Your task to perform on an android device: Go to Yahoo.com Image 0: 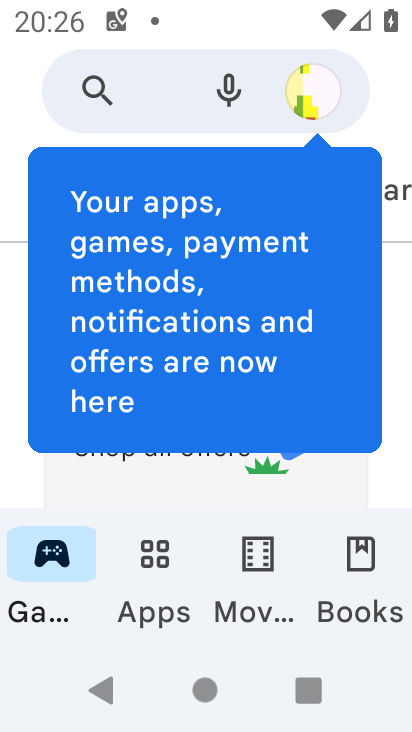
Step 0: press home button
Your task to perform on an android device: Go to Yahoo.com Image 1: 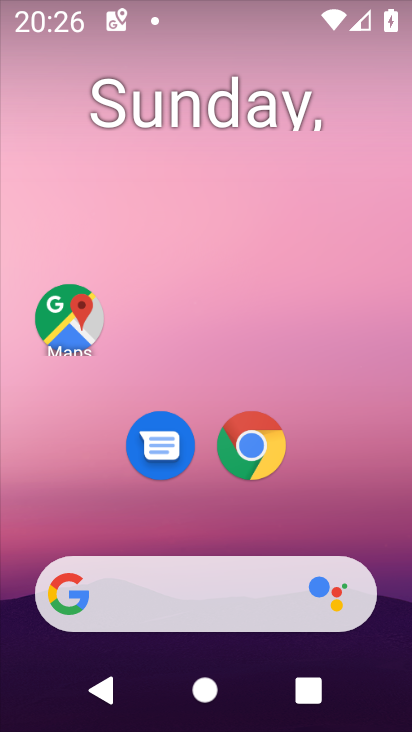
Step 1: click (239, 441)
Your task to perform on an android device: Go to Yahoo.com Image 2: 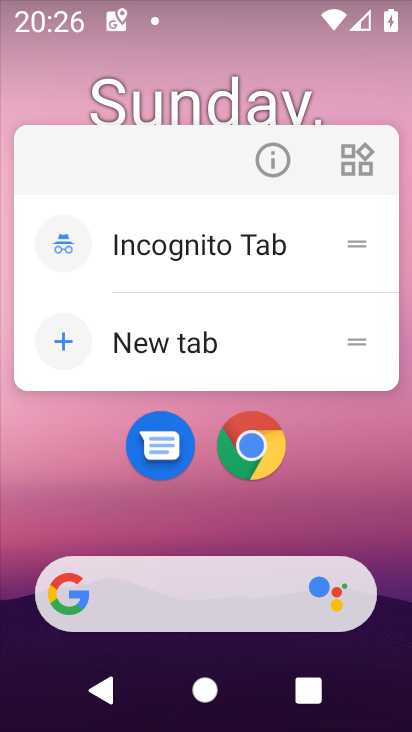
Step 2: click (255, 442)
Your task to perform on an android device: Go to Yahoo.com Image 3: 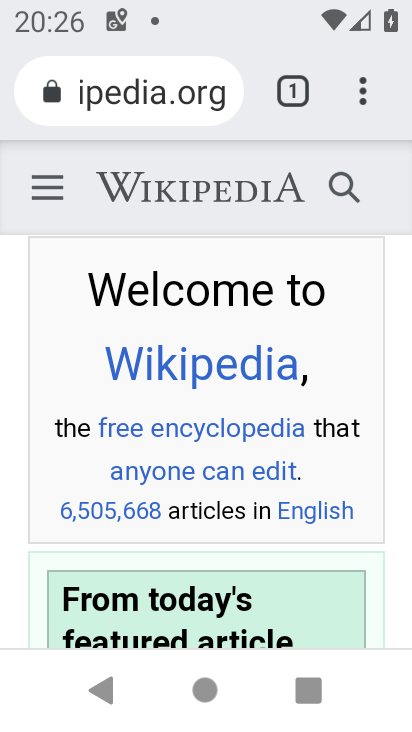
Step 3: click (278, 96)
Your task to perform on an android device: Go to Yahoo.com Image 4: 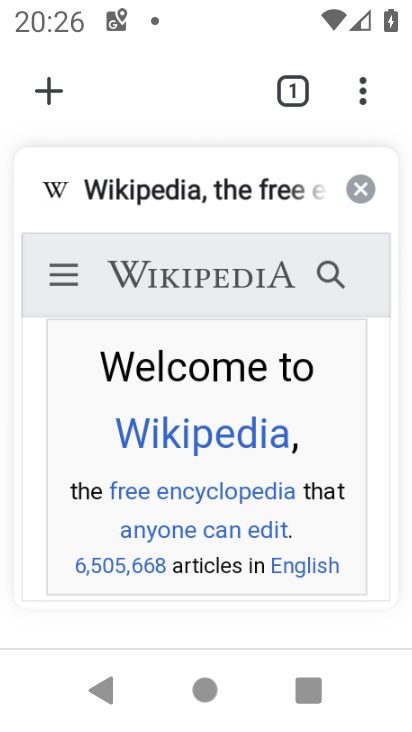
Step 4: click (366, 191)
Your task to perform on an android device: Go to Yahoo.com Image 5: 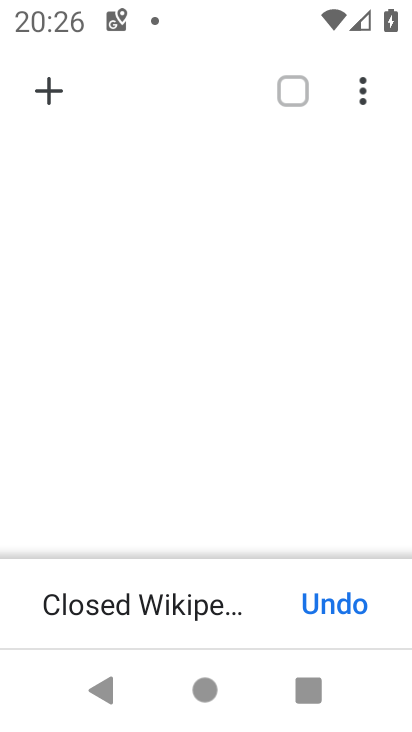
Step 5: click (44, 92)
Your task to perform on an android device: Go to Yahoo.com Image 6: 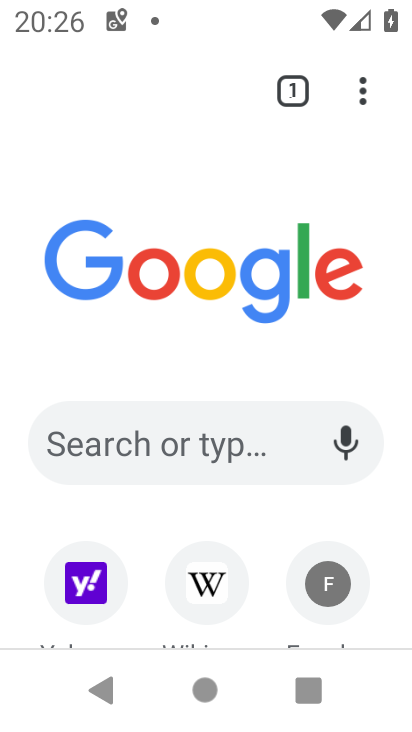
Step 6: click (127, 571)
Your task to perform on an android device: Go to Yahoo.com Image 7: 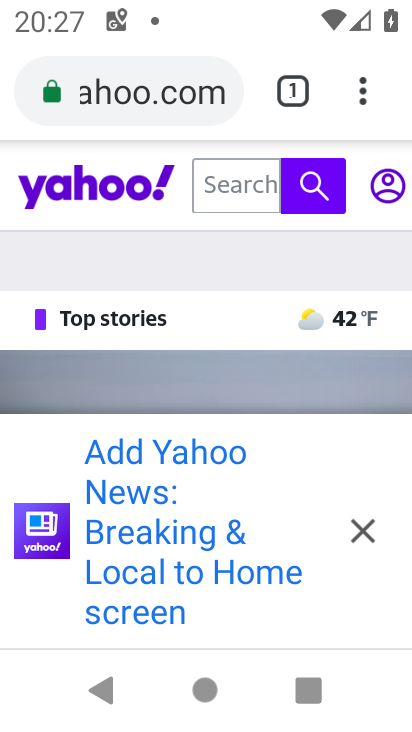
Step 7: task complete